Your task to perform on an android device: open chrome privacy settings Image 0: 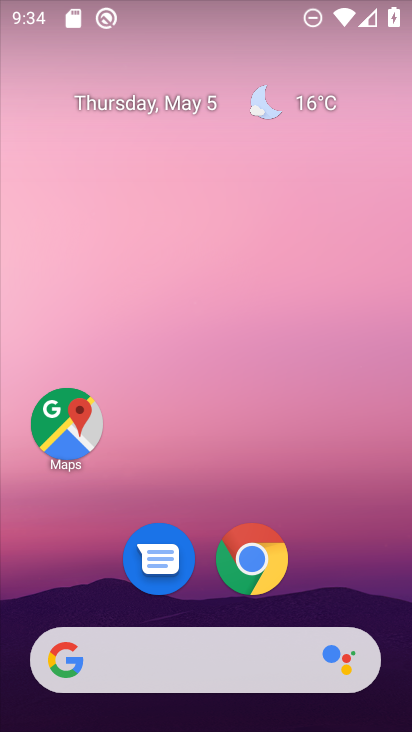
Step 0: click (252, 569)
Your task to perform on an android device: open chrome privacy settings Image 1: 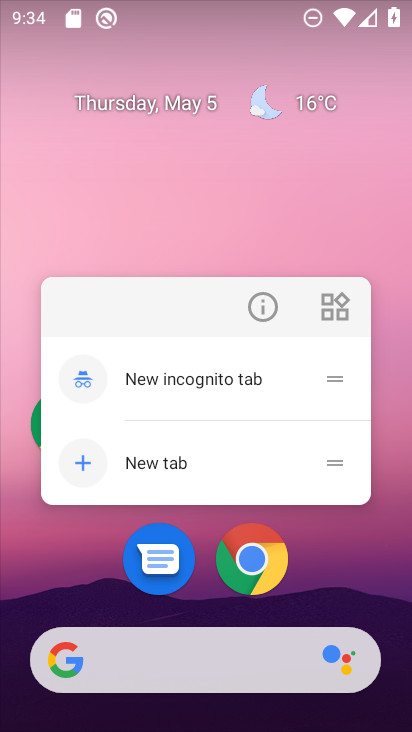
Step 1: click (260, 566)
Your task to perform on an android device: open chrome privacy settings Image 2: 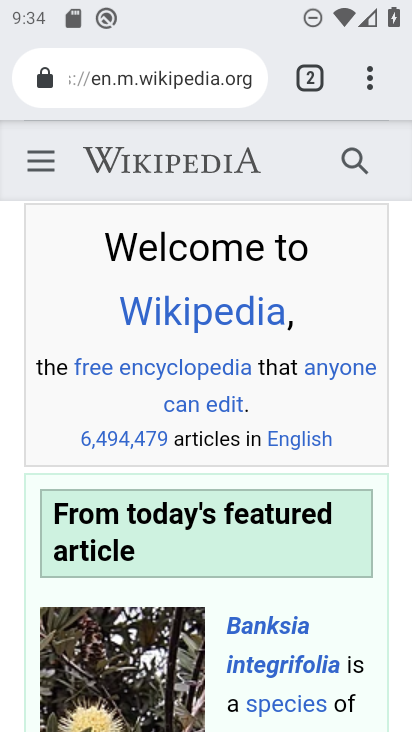
Step 2: drag from (371, 82) to (107, 619)
Your task to perform on an android device: open chrome privacy settings Image 3: 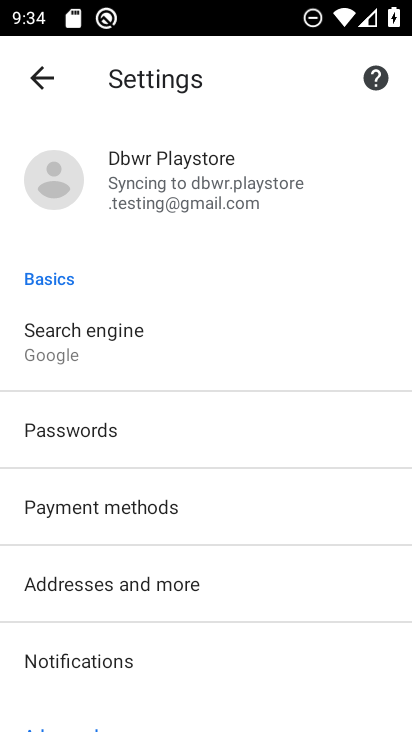
Step 3: drag from (242, 602) to (255, 211)
Your task to perform on an android device: open chrome privacy settings Image 4: 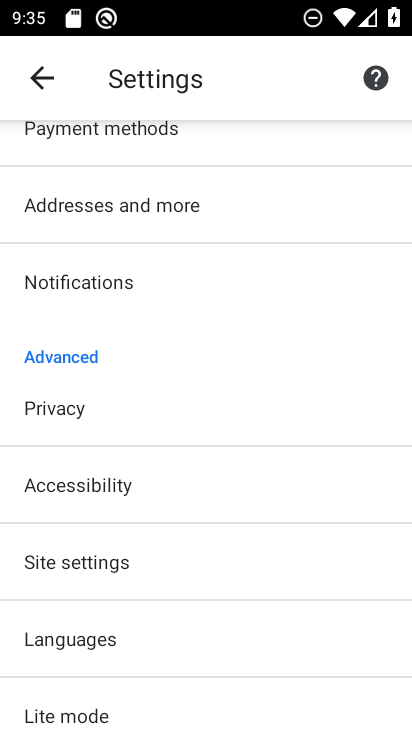
Step 4: click (64, 416)
Your task to perform on an android device: open chrome privacy settings Image 5: 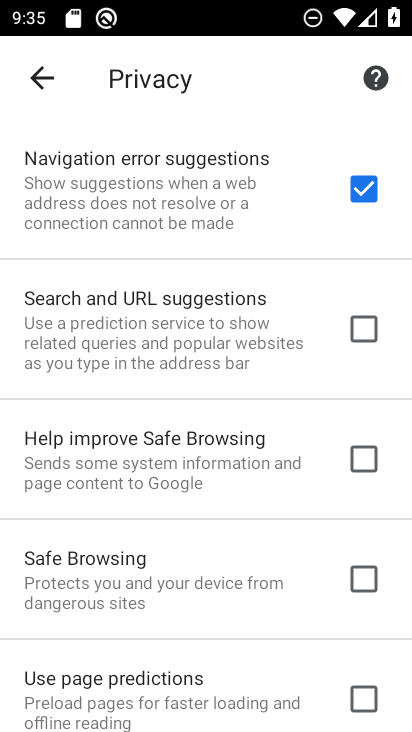
Step 5: task complete